Your task to perform on an android device: Open Google Maps and go to "Timeline" Image 0: 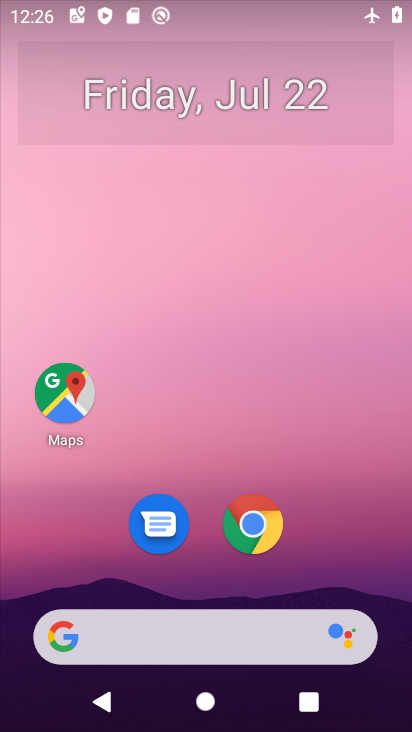
Step 0: click (61, 394)
Your task to perform on an android device: Open Google Maps and go to "Timeline" Image 1: 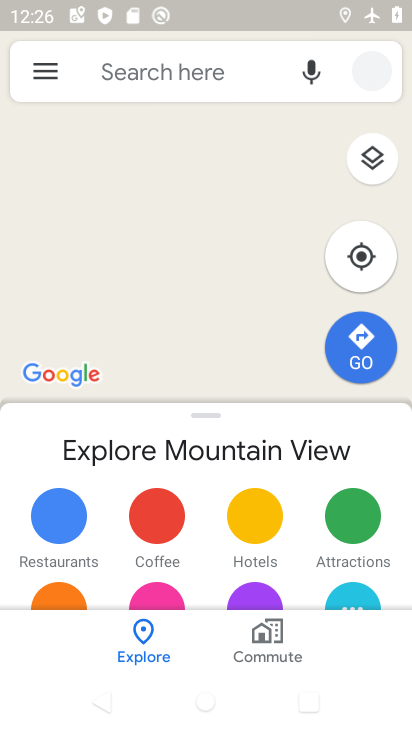
Step 1: click (46, 67)
Your task to perform on an android device: Open Google Maps and go to "Timeline" Image 2: 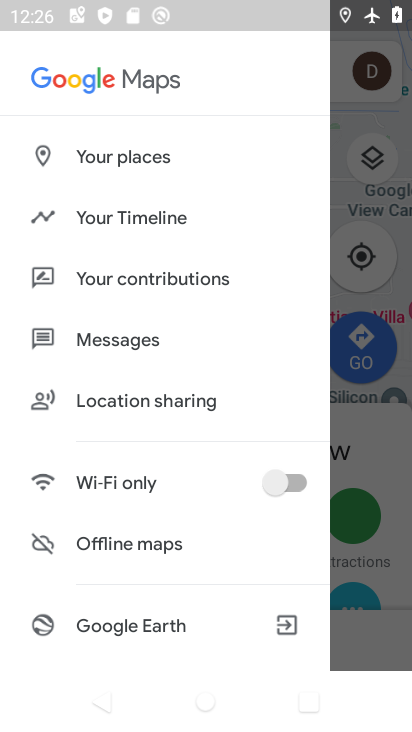
Step 2: click (127, 213)
Your task to perform on an android device: Open Google Maps and go to "Timeline" Image 3: 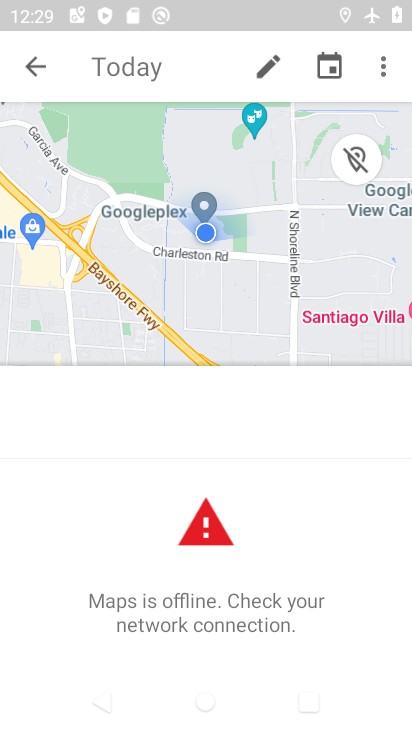
Step 3: task complete